Your task to perform on an android device: Open Google Maps and go to "Timeline" Image 0: 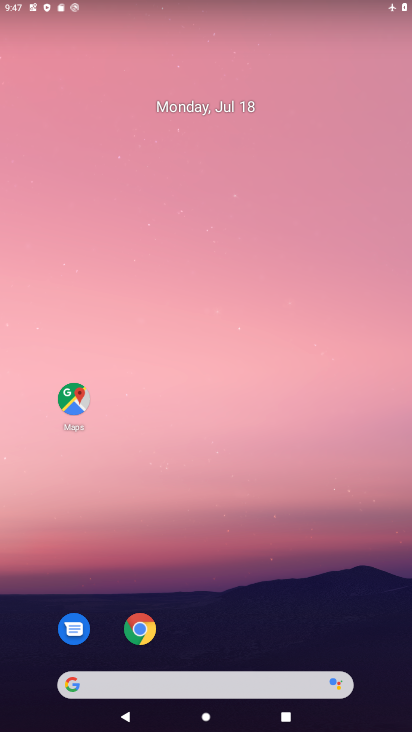
Step 0: drag from (311, 597) to (204, 22)
Your task to perform on an android device: Open Google Maps and go to "Timeline" Image 1: 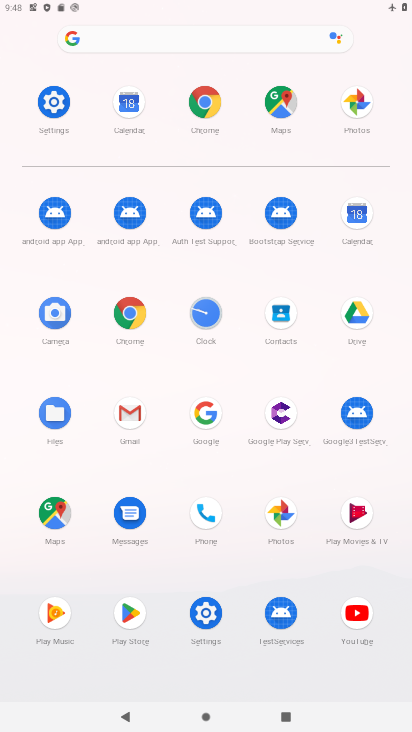
Step 1: click (290, 98)
Your task to perform on an android device: Open Google Maps and go to "Timeline" Image 2: 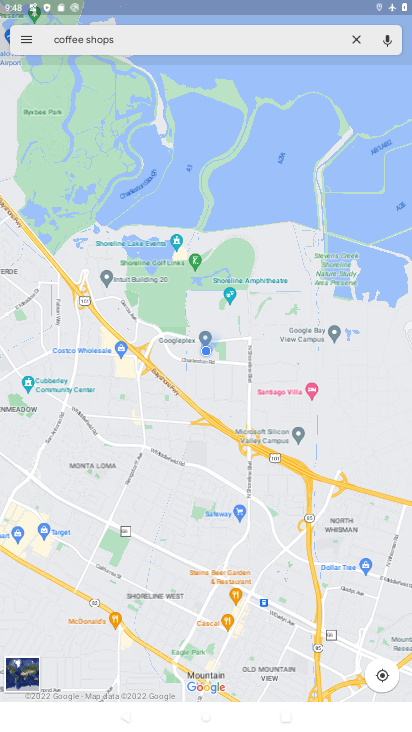
Step 2: click (26, 31)
Your task to perform on an android device: Open Google Maps and go to "Timeline" Image 3: 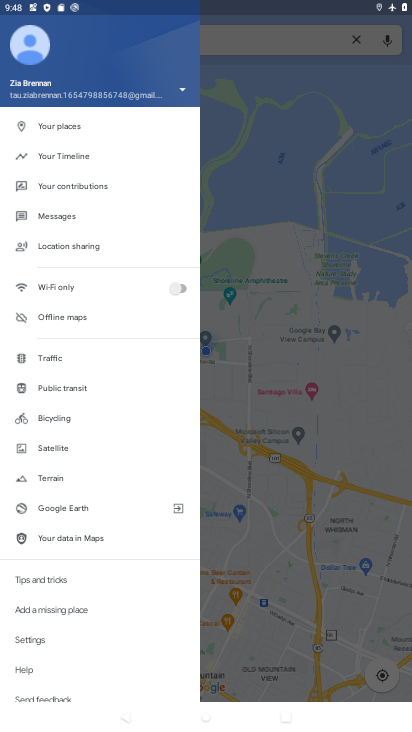
Step 3: click (47, 152)
Your task to perform on an android device: Open Google Maps and go to "Timeline" Image 4: 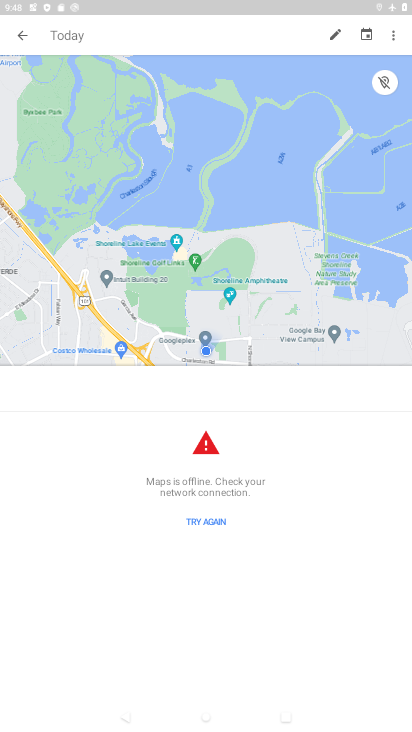
Step 4: task complete